Your task to perform on an android device: Toggle the flashlight Image 0: 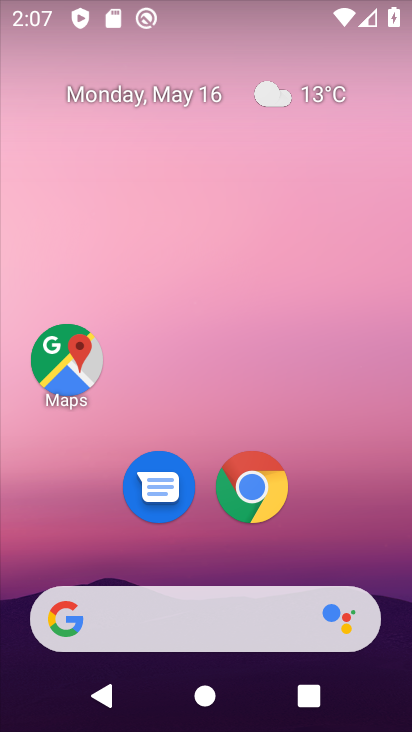
Step 0: drag from (244, 460) to (173, 94)
Your task to perform on an android device: Toggle the flashlight Image 1: 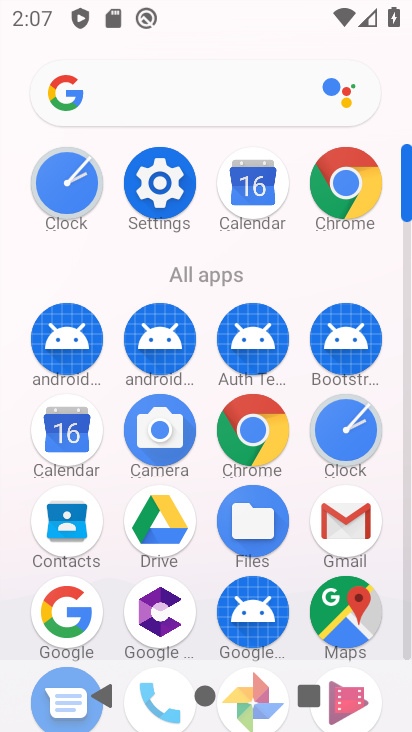
Step 1: click (175, 199)
Your task to perform on an android device: Toggle the flashlight Image 2: 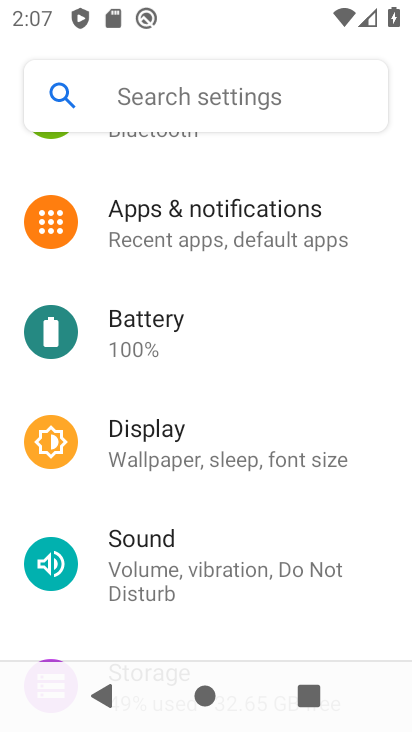
Step 2: drag from (205, 291) to (196, 573)
Your task to perform on an android device: Toggle the flashlight Image 3: 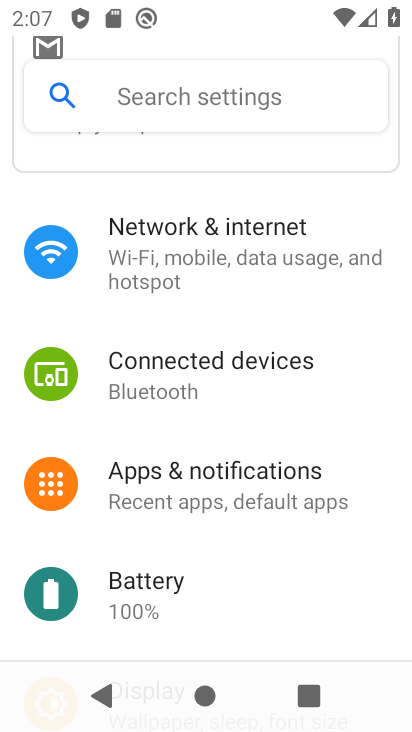
Step 3: click (199, 94)
Your task to perform on an android device: Toggle the flashlight Image 4: 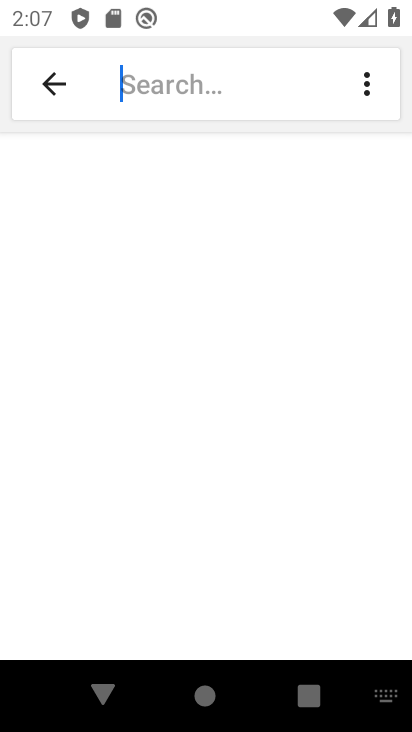
Step 4: type "flashlight"
Your task to perform on an android device: Toggle the flashlight Image 5: 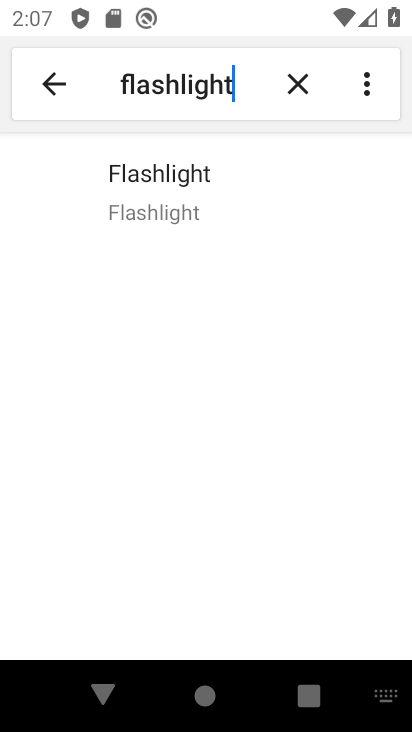
Step 5: click (171, 197)
Your task to perform on an android device: Toggle the flashlight Image 6: 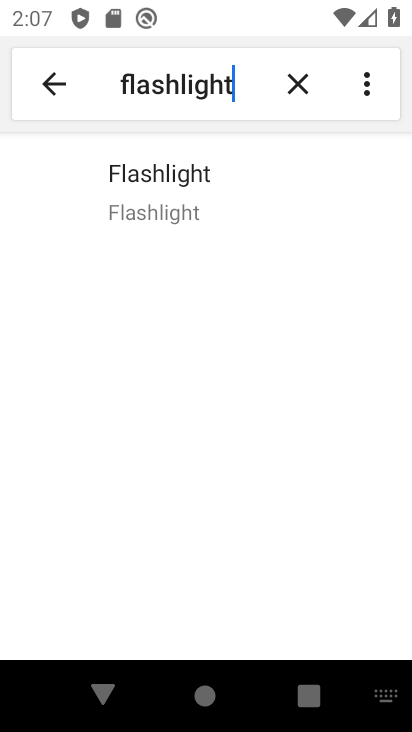
Step 6: click (171, 197)
Your task to perform on an android device: Toggle the flashlight Image 7: 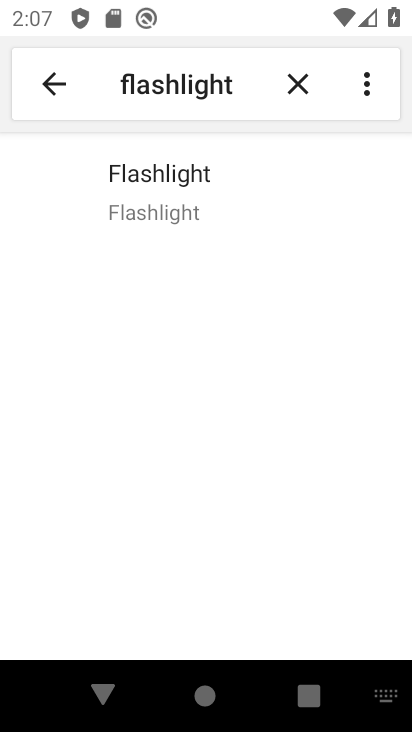
Step 7: click (171, 197)
Your task to perform on an android device: Toggle the flashlight Image 8: 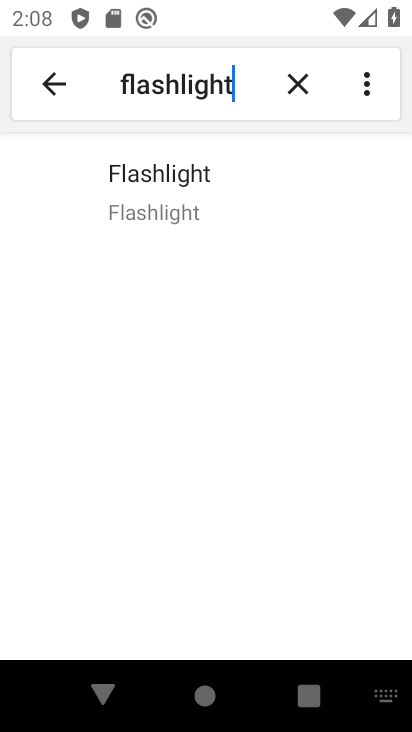
Step 8: click (164, 184)
Your task to perform on an android device: Toggle the flashlight Image 9: 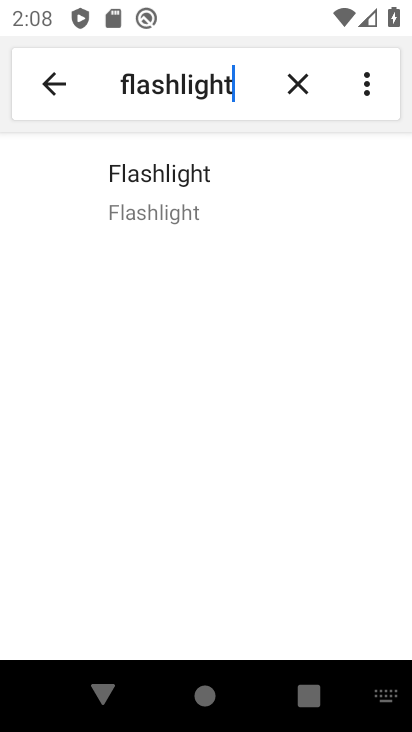
Step 9: task complete